Your task to perform on an android device: stop showing notifications on the lock screen Image 0: 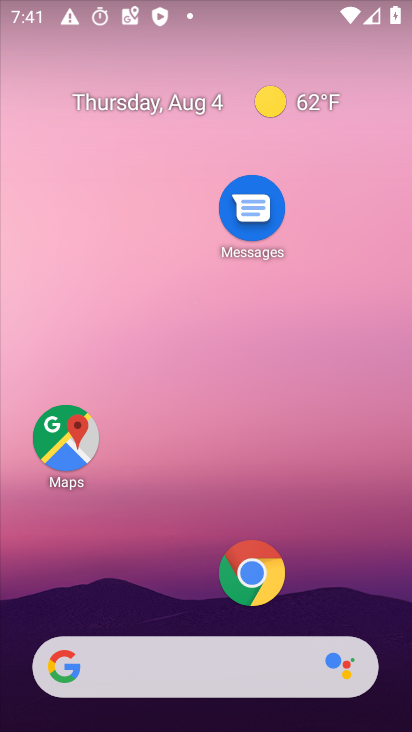
Step 0: drag from (176, 623) to (226, 103)
Your task to perform on an android device: stop showing notifications on the lock screen Image 1: 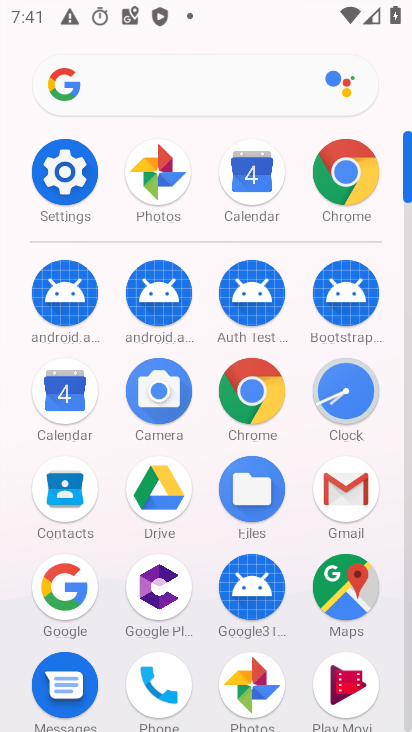
Step 1: click (62, 174)
Your task to perform on an android device: stop showing notifications on the lock screen Image 2: 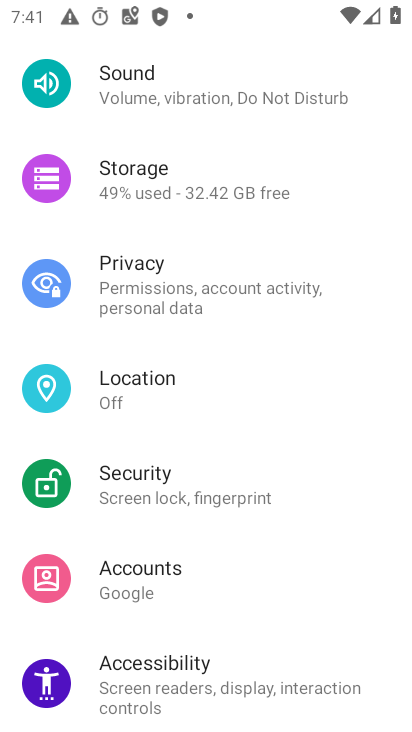
Step 2: drag from (238, 70) to (308, 635)
Your task to perform on an android device: stop showing notifications on the lock screen Image 3: 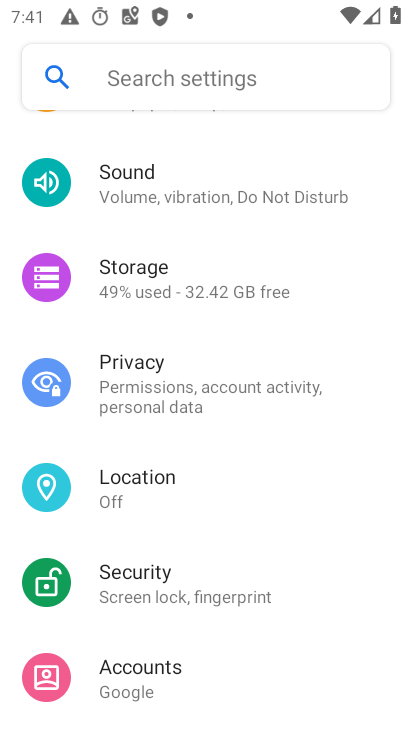
Step 3: drag from (267, 252) to (362, 715)
Your task to perform on an android device: stop showing notifications on the lock screen Image 4: 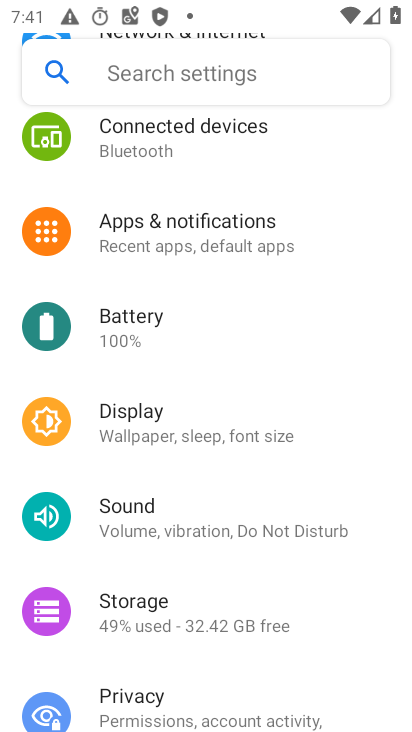
Step 4: click (194, 225)
Your task to perform on an android device: stop showing notifications on the lock screen Image 5: 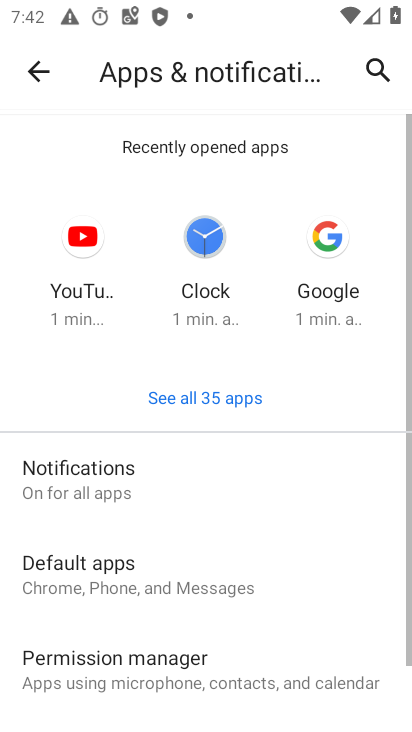
Step 5: click (99, 476)
Your task to perform on an android device: stop showing notifications on the lock screen Image 6: 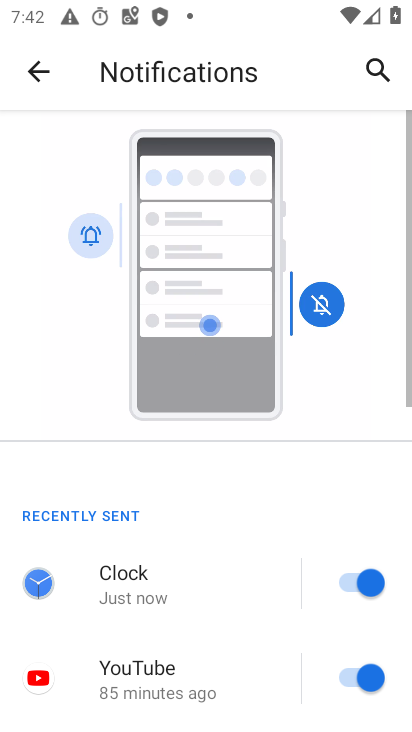
Step 6: drag from (281, 581) to (260, 28)
Your task to perform on an android device: stop showing notifications on the lock screen Image 7: 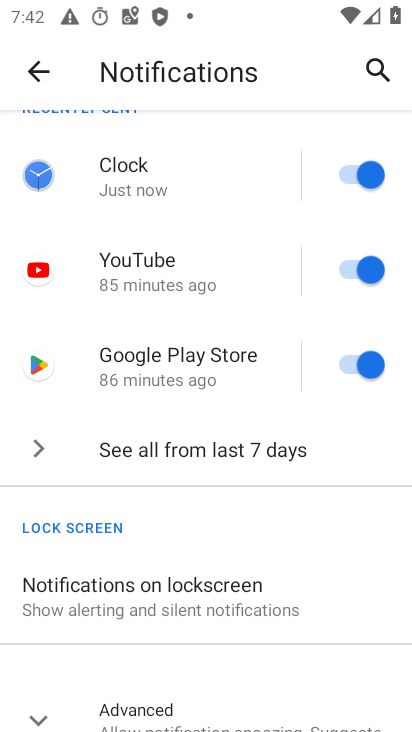
Step 7: drag from (336, 502) to (317, 215)
Your task to perform on an android device: stop showing notifications on the lock screen Image 8: 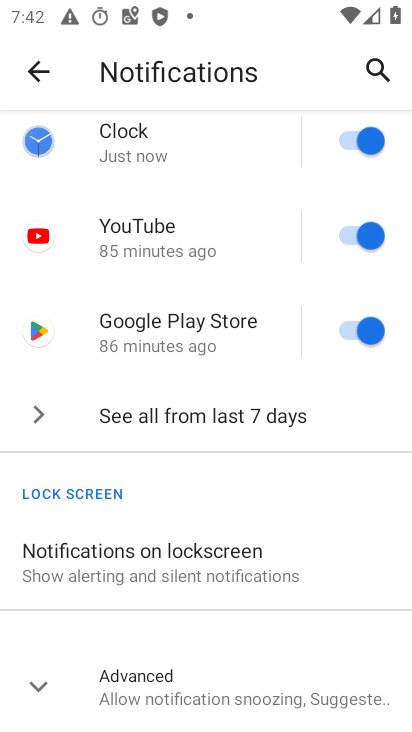
Step 8: click (178, 548)
Your task to perform on an android device: stop showing notifications on the lock screen Image 9: 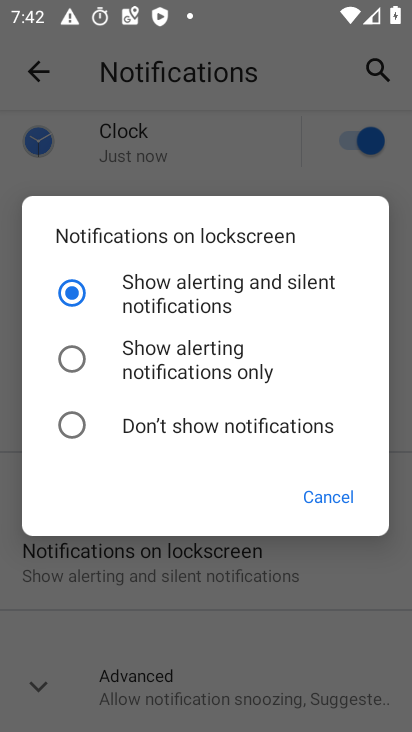
Step 9: click (73, 426)
Your task to perform on an android device: stop showing notifications on the lock screen Image 10: 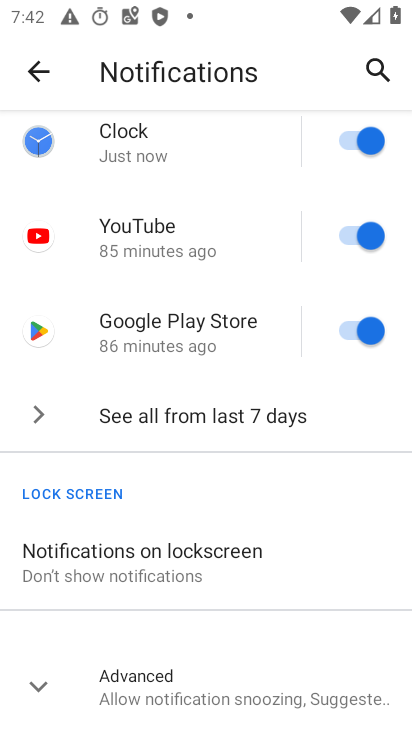
Step 10: task complete